Your task to perform on an android device: Go to Google maps Image 0: 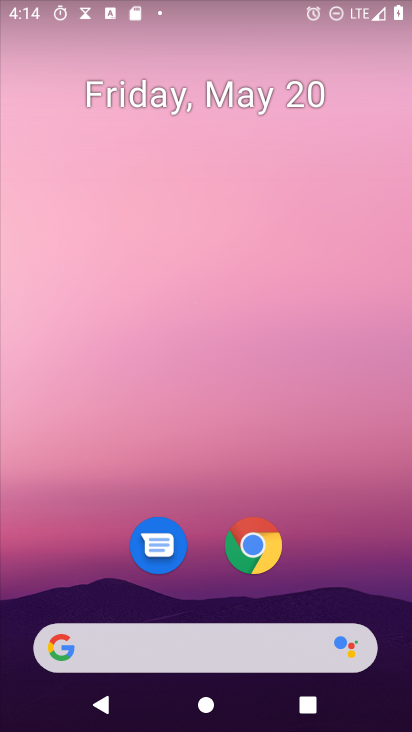
Step 0: drag from (284, 586) to (370, 4)
Your task to perform on an android device: Go to Google maps Image 1: 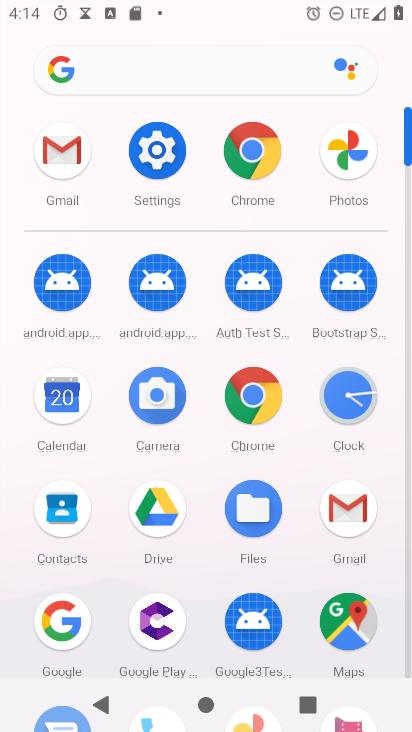
Step 1: click (352, 610)
Your task to perform on an android device: Go to Google maps Image 2: 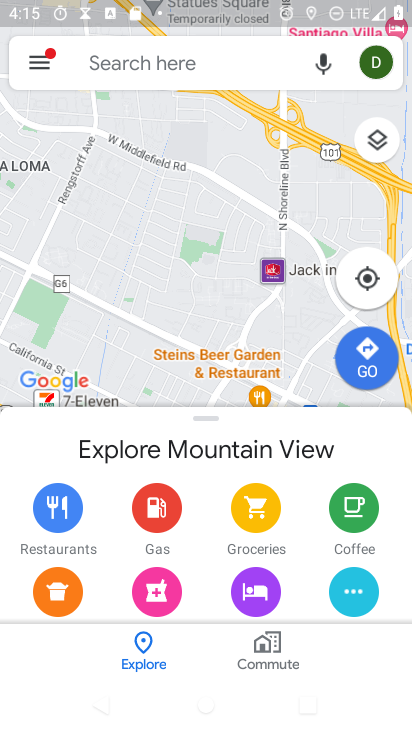
Step 2: press home button
Your task to perform on an android device: Go to Google maps Image 3: 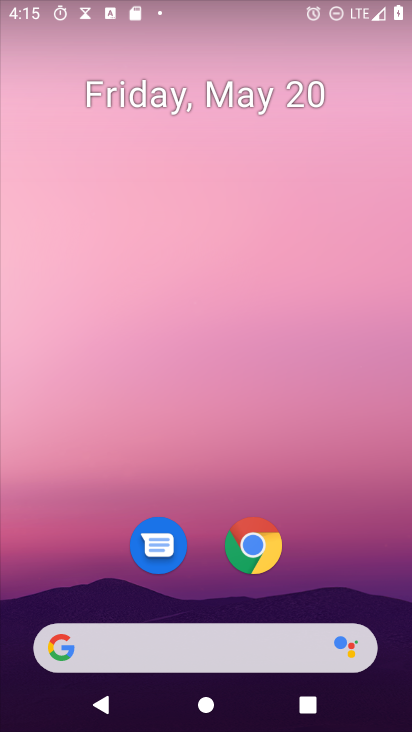
Step 3: drag from (222, 638) to (243, 108)
Your task to perform on an android device: Go to Google maps Image 4: 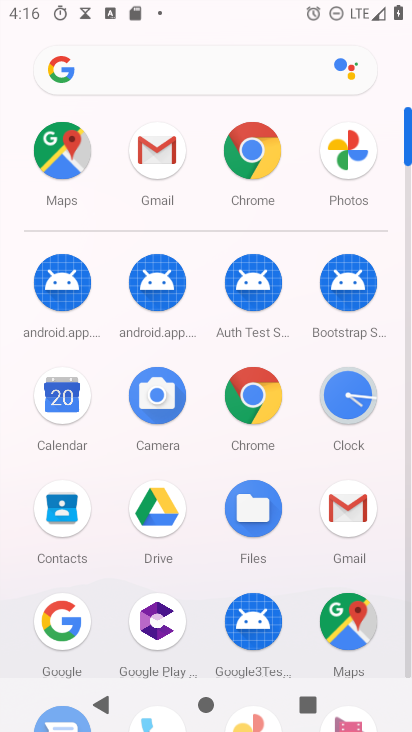
Step 4: click (340, 625)
Your task to perform on an android device: Go to Google maps Image 5: 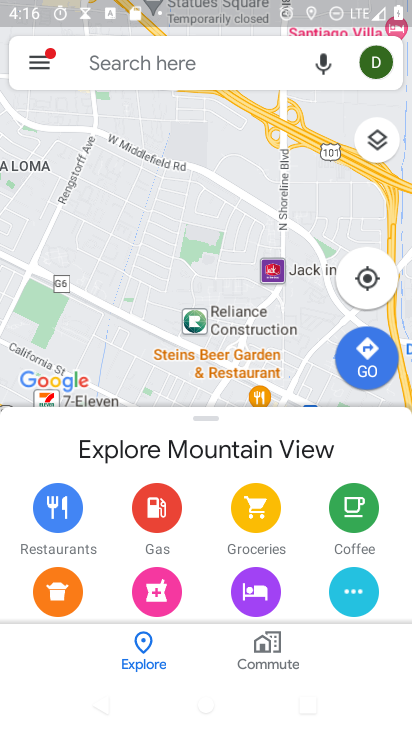
Step 5: task complete